Your task to perform on an android device: Open Wikipedia Image 0: 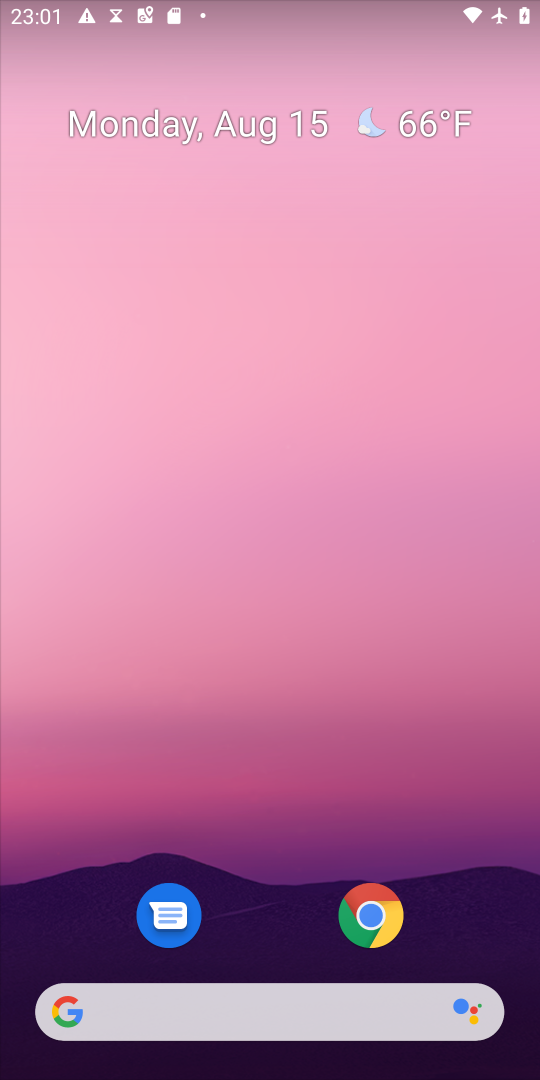
Step 0: press home button
Your task to perform on an android device: Open Wikipedia Image 1: 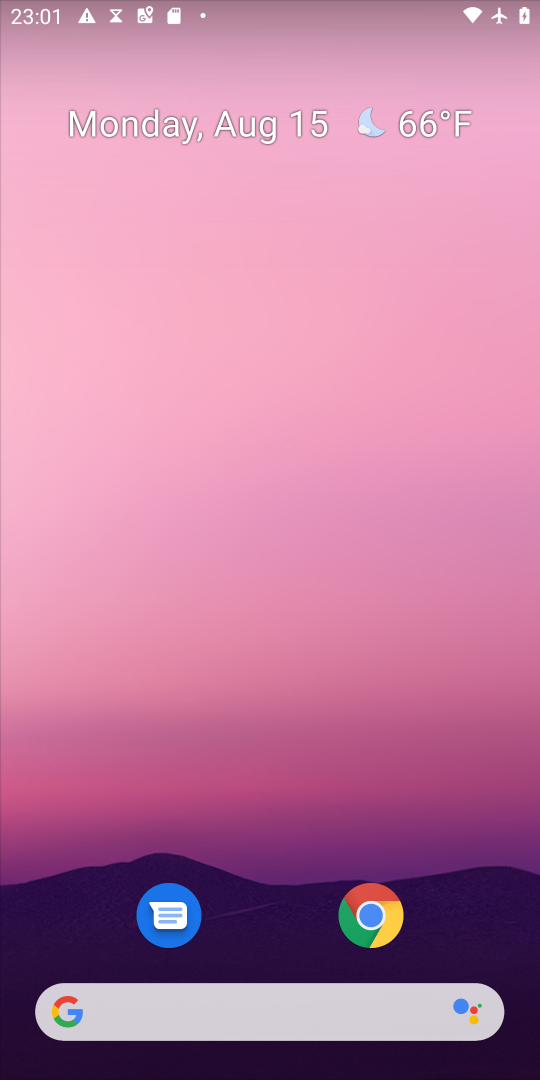
Step 1: click (68, 1023)
Your task to perform on an android device: Open Wikipedia Image 2: 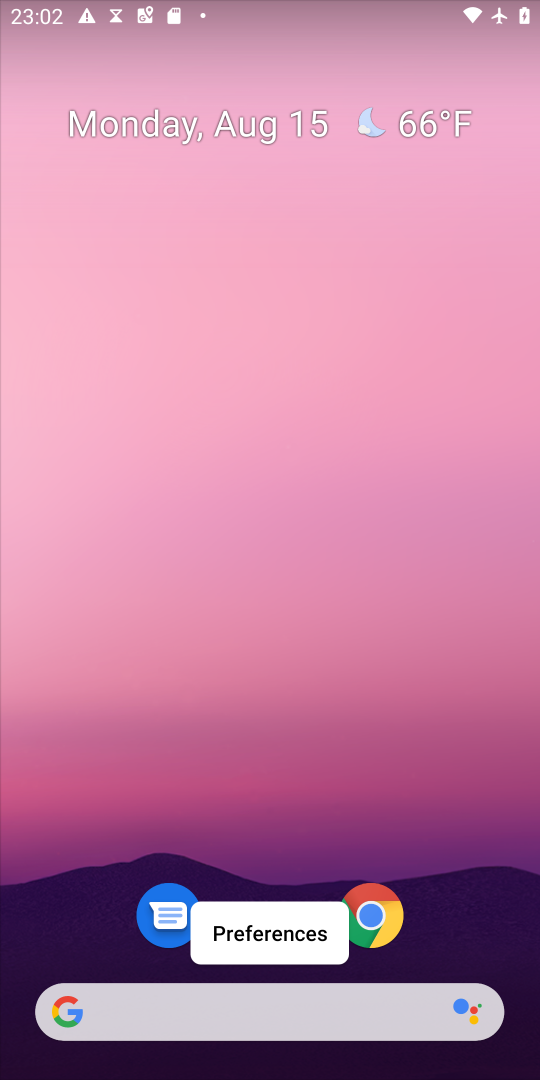
Step 2: click (52, 1012)
Your task to perform on an android device: Open Wikipedia Image 3: 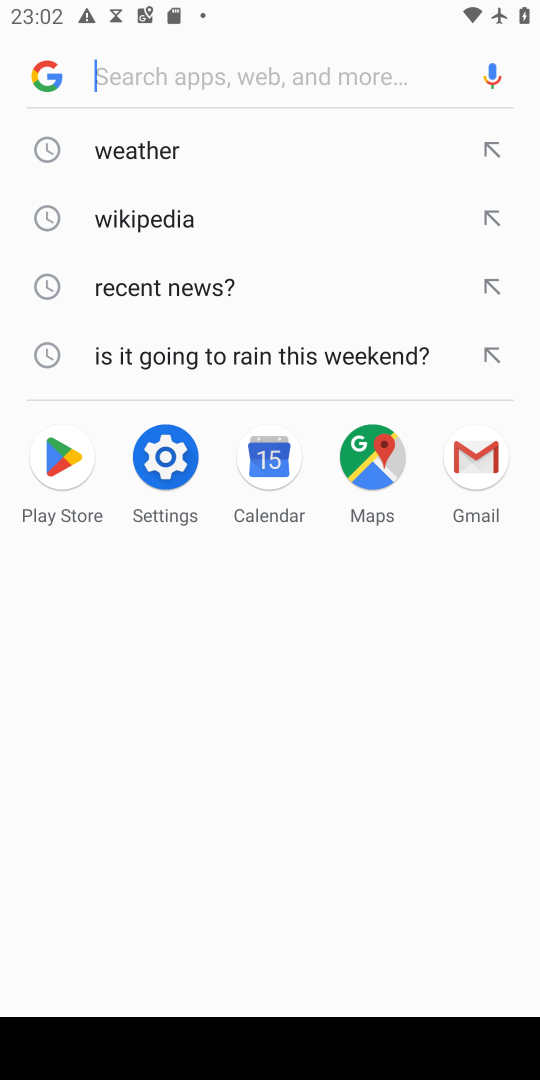
Step 3: click (135, 228)
Your task to perform on an android device: Open Wikipedia Image 4: 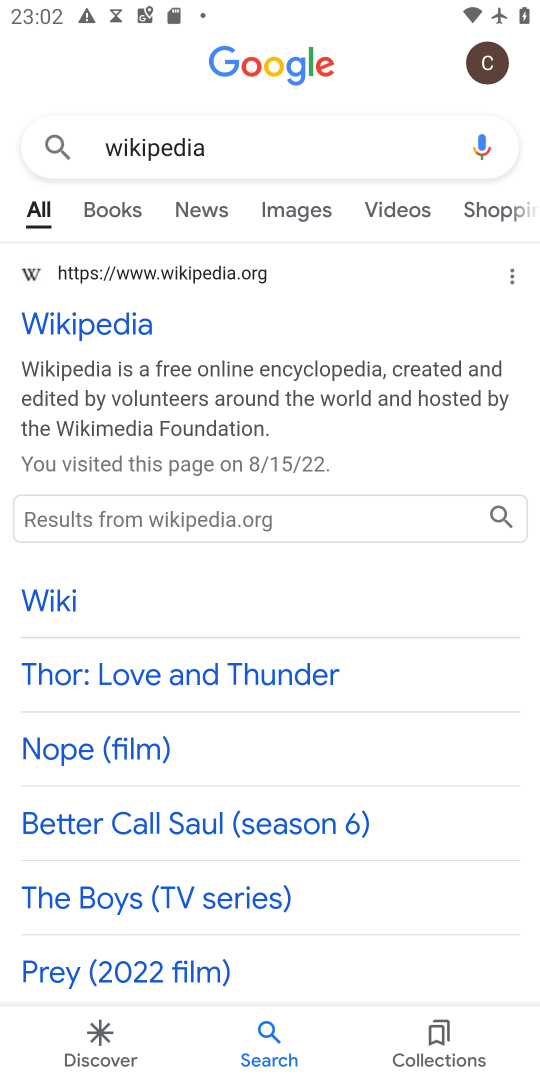
Step 4: click (61, 320)
Your task to perform on an android device: Open Wikipedia Image 5: 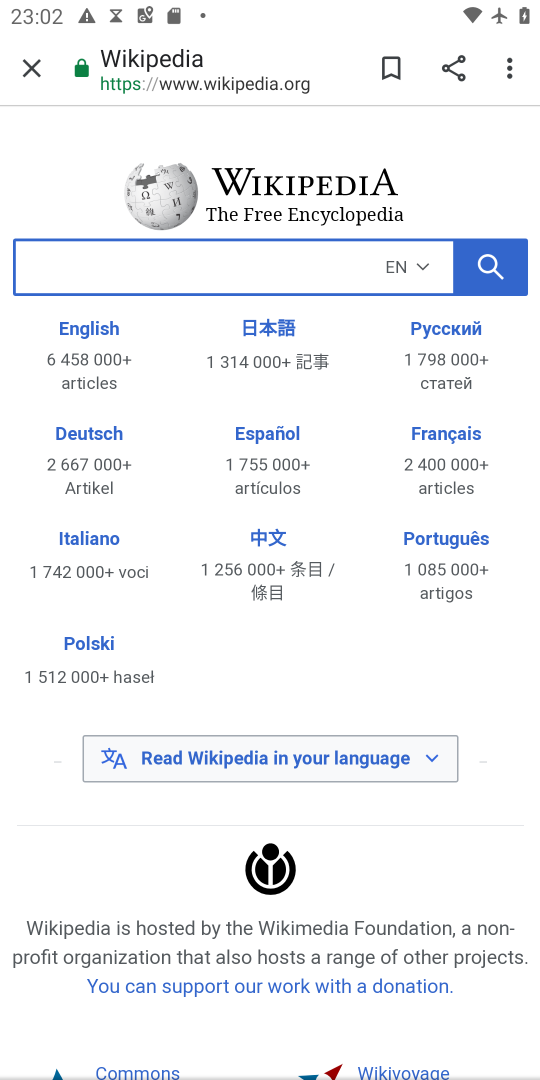
Step 5: task complete